Your task to perform on an android device: toggle sleep mode Image 0: 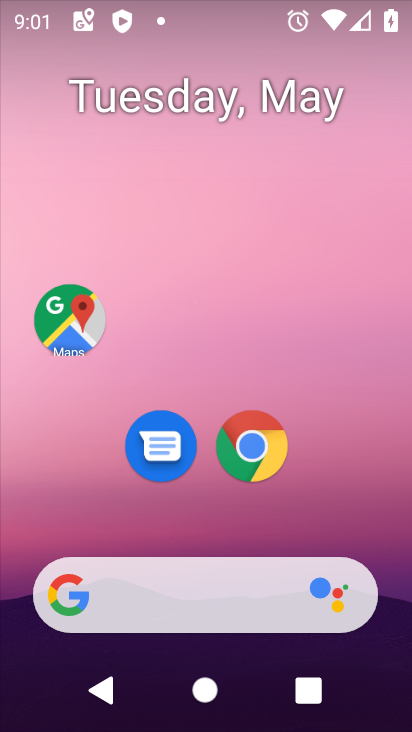
Step 0: drag from (392, 549) to (333, 3)
Your task to perform on an android device: toggle sleep mode Image 1: 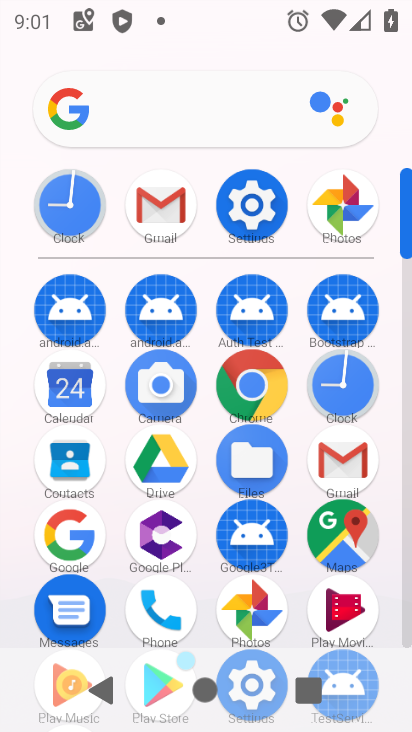
Step 1: click (244, 210)
Your task to perform on an android device: toggle sleep mode Image 2: 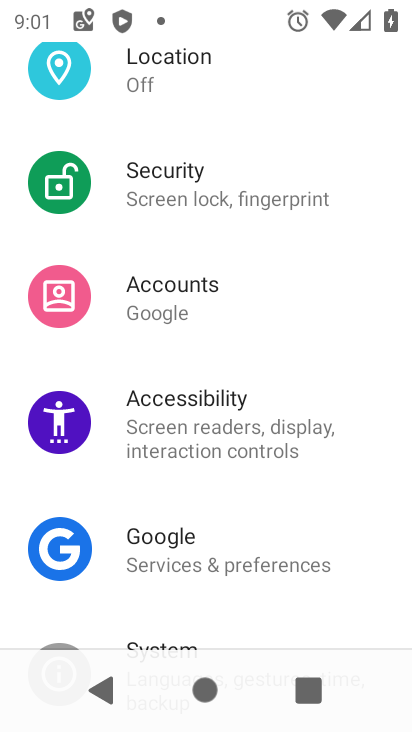
Step 2: drag from (260, 210) to (278, 545)
Your task to perform on an android device: toggle sleep mode Image 3: 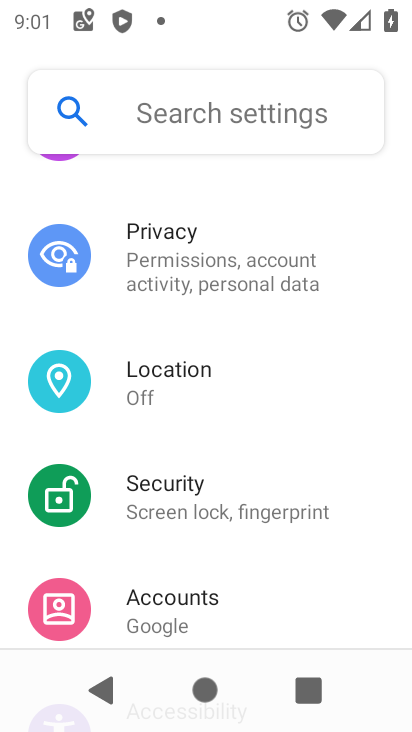
Step 3: drag from (236, 257) to (245, 567)
Your task to perform on an android device: toggle sleep mode Image 4: 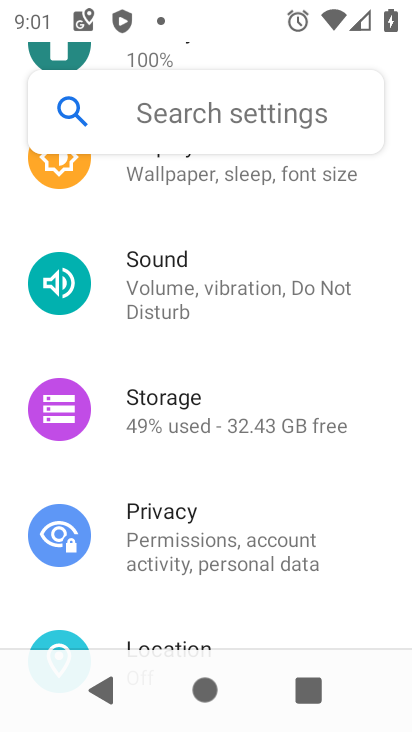
Step 4: drag from (165, 234) to (183, 426)
Your task to perform on an android device: toggle sleep mode Image 5: 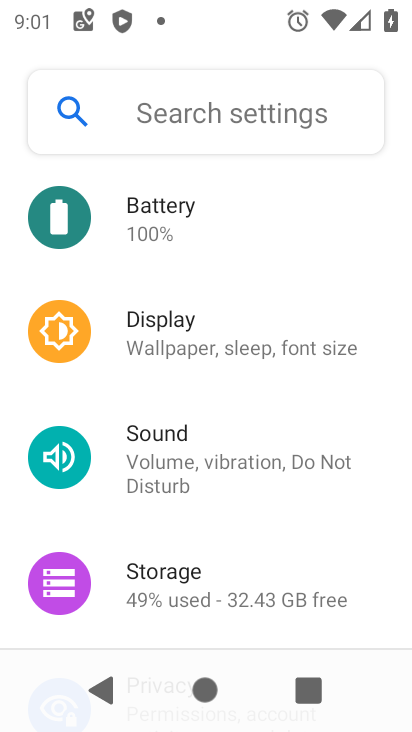
Step 5: click (184, 352)
Your task to perform on an android device: toggle sleep mode Image 6: 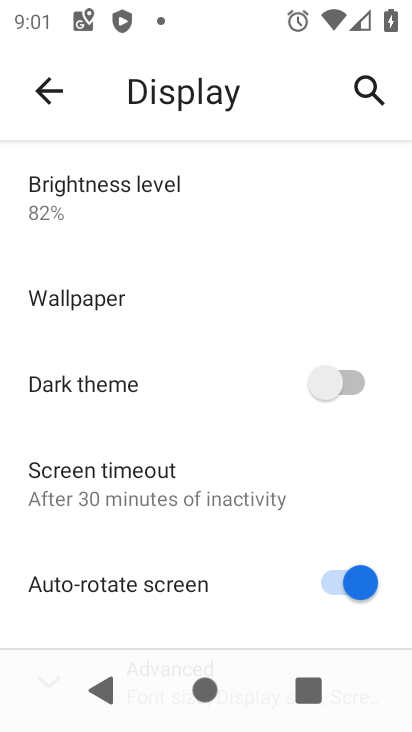
Step 6: drag from (150, 497) to (141, 165)
Your task to perform on an android device: toggle sleep mode Image 7: 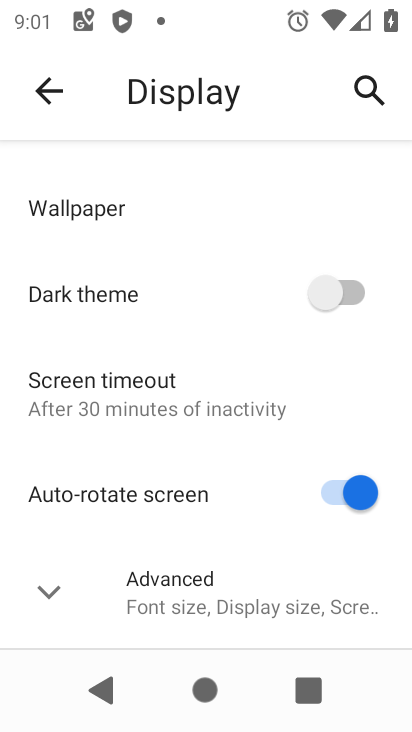
Step 7: click (53, 603)
Your task to perform on an android device: toggle sleep mode Image 8: 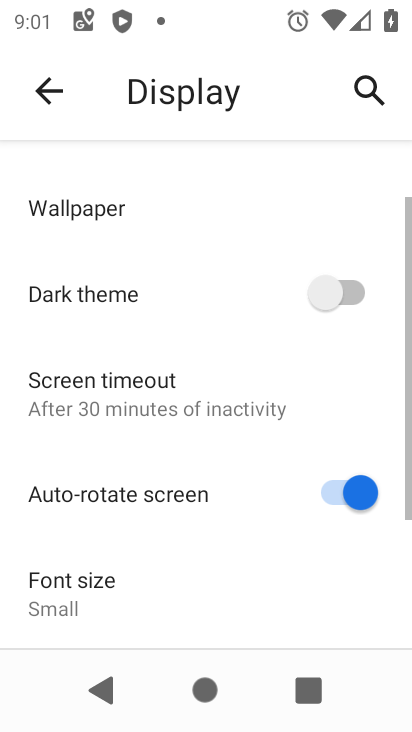
Step 8: task complete